Your task to perform on an android device: Check the news Image 0: 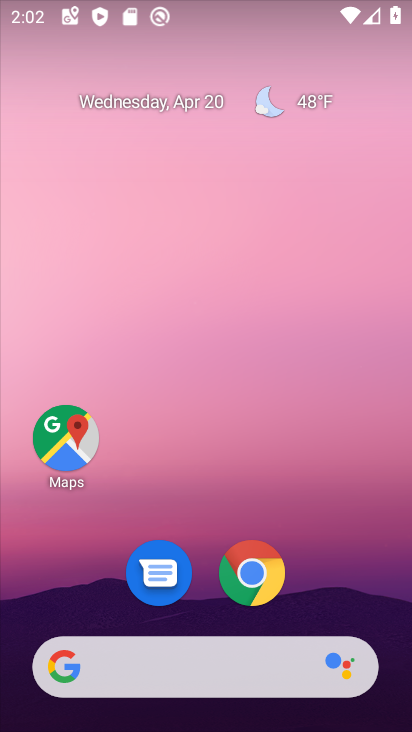
Step 0: drag from (337, 46) to (355, 87)
Your task to perform on an android device: Check the news Image 1: 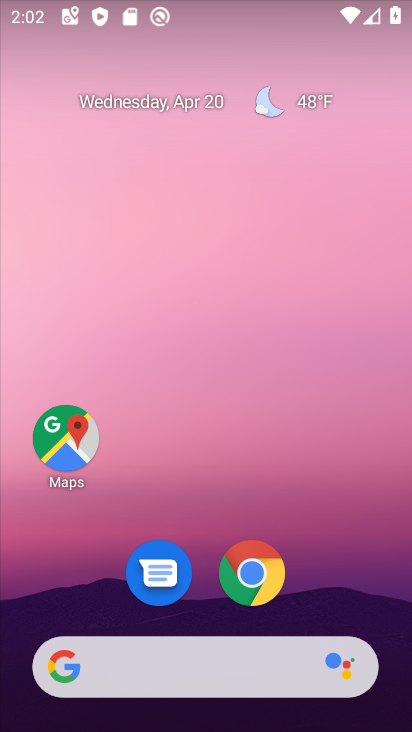
Step 1: drag from (176, 659) to (313, 55)
Your task to perform on an android device: Check the news Image 2: 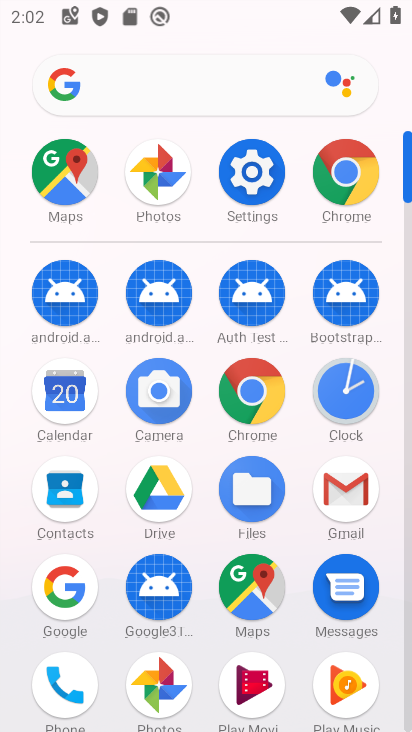
Step 2: click (75, 587)
Your task to perform on an android device: Check the news Image 3: 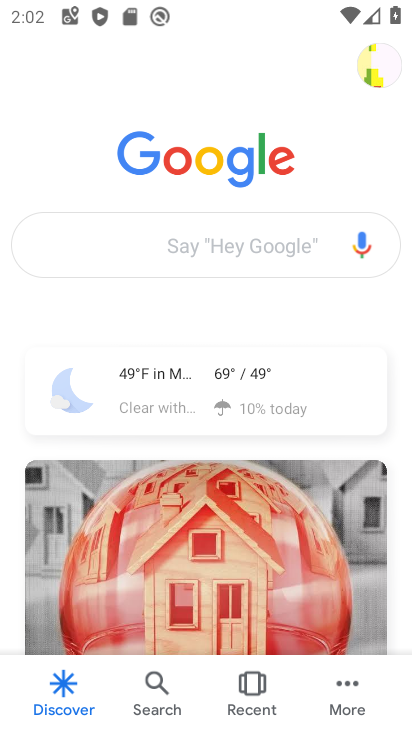
Step 3: task complete